Your task to perform on an android device: add a contact Image 0: 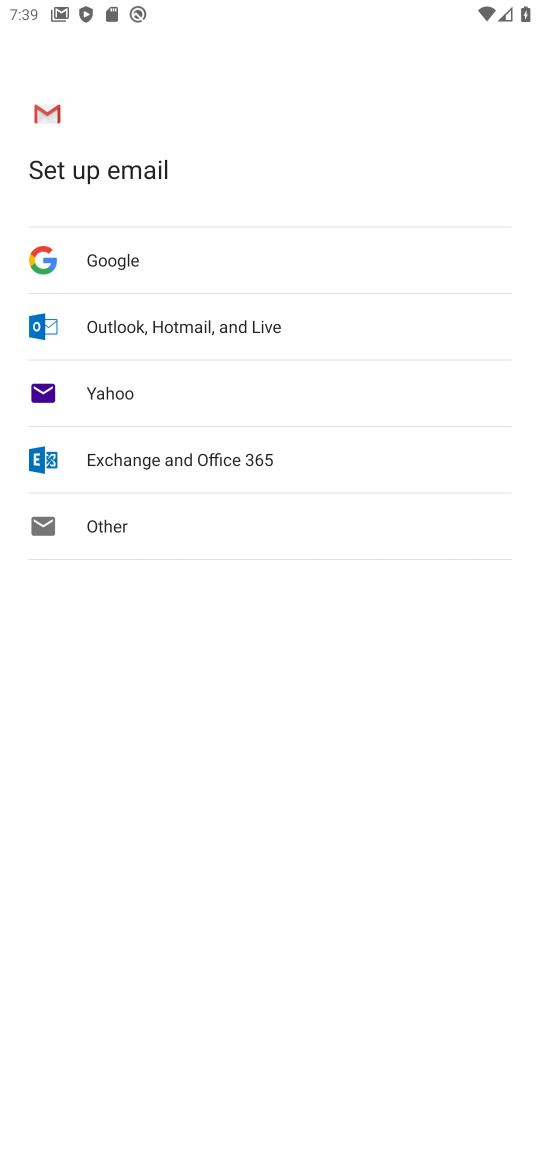
Step 0: press home button
Your task to perform on an android device: add a contact Image 1: 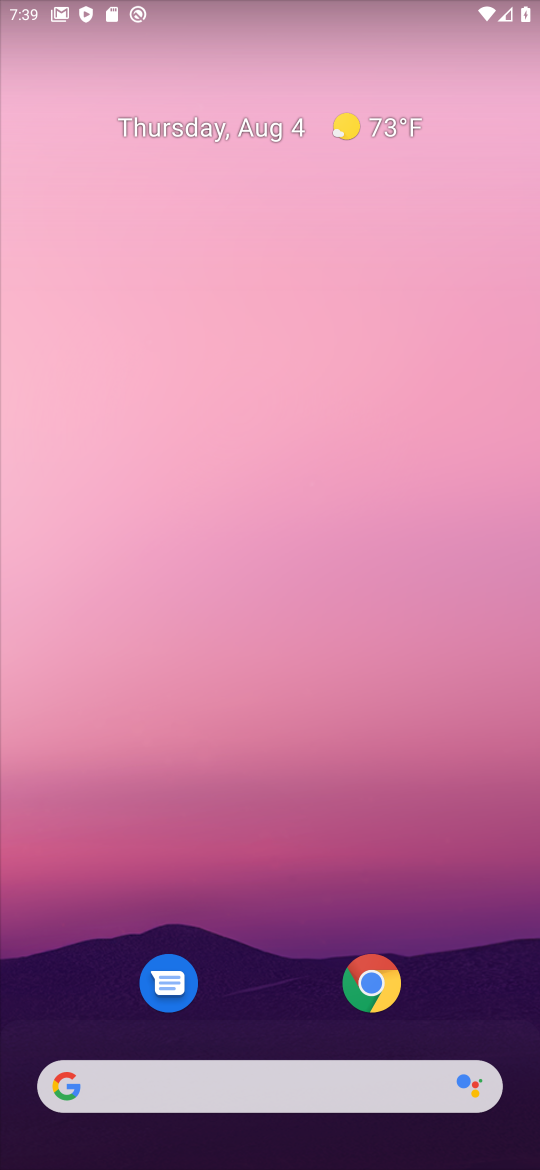
Step 1: drag from (335, 928) to (379, 257)
Your task to perform on an android device: add a contact Image 2: 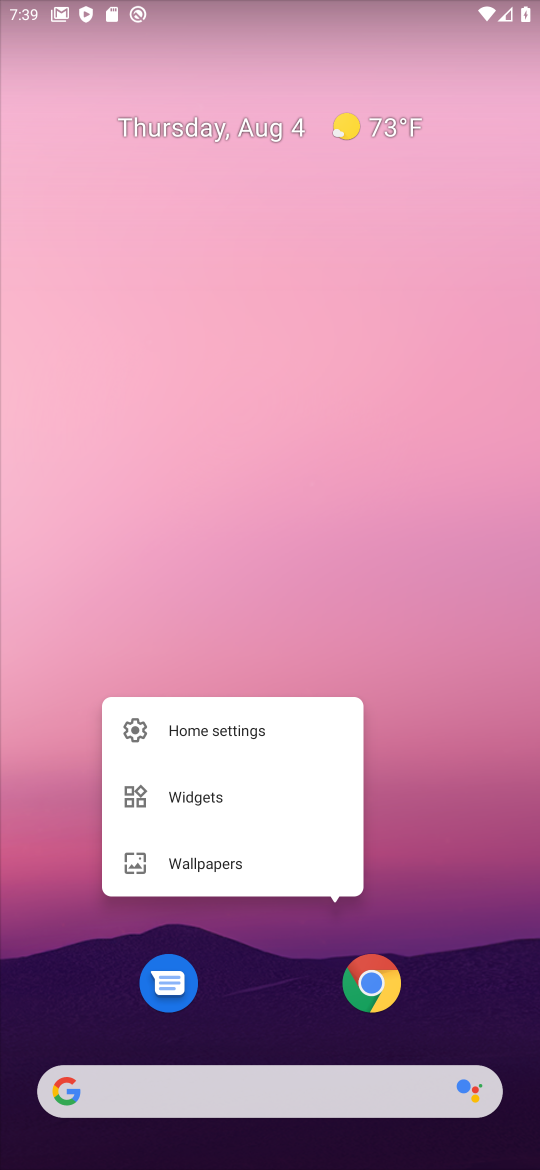
Step 2: drag from (273, 972) to (410, 163)
Your task to perform on an android device: add a contact Image 3: 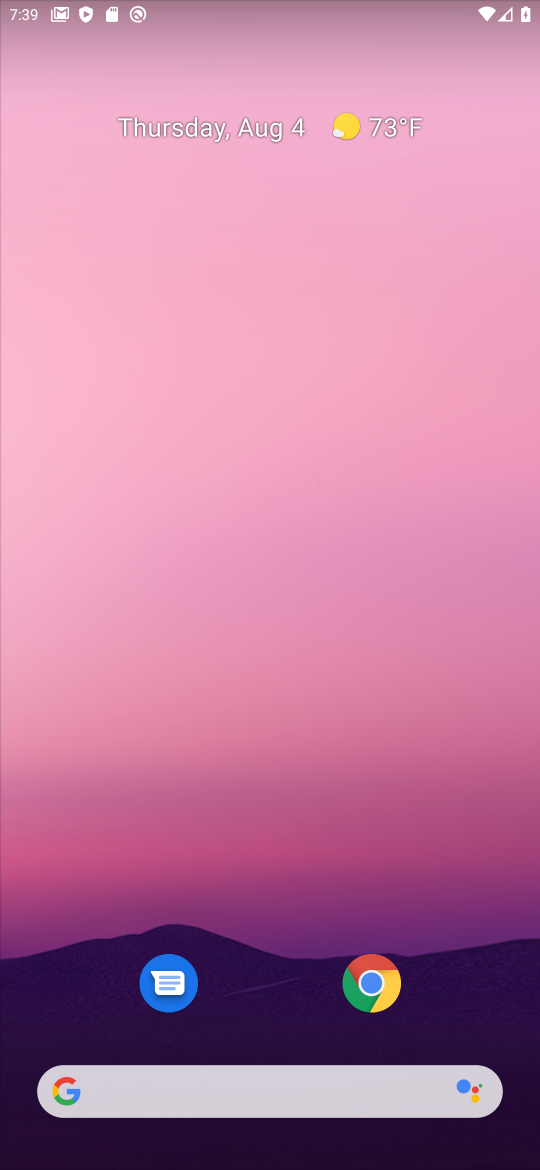
Step 3: drag from (277, 1026) to (373, 213)
Your task to perform on an android device: add a contact Image 4: 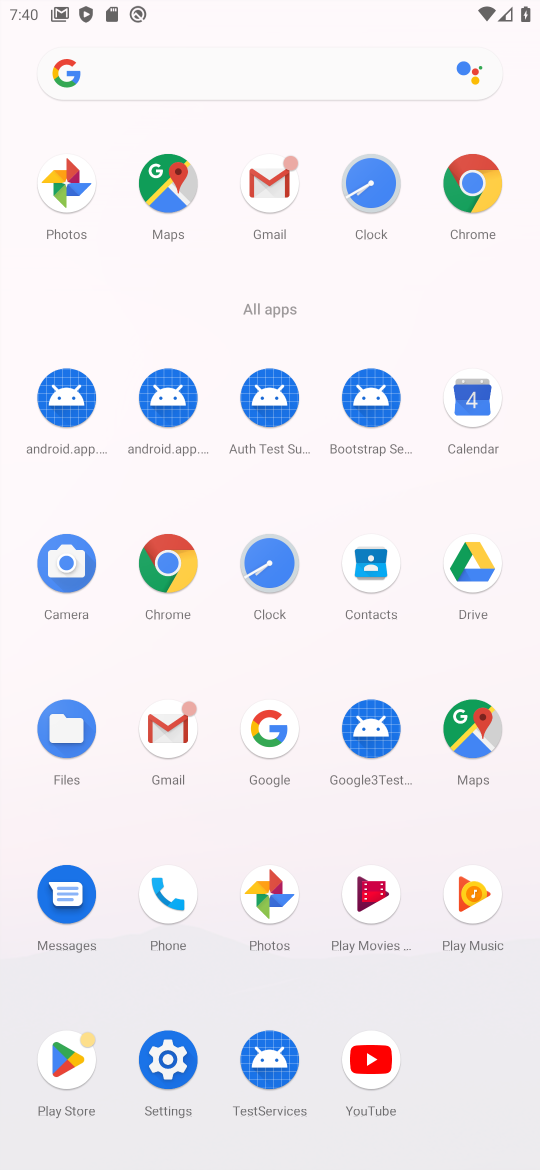
Step 4: click (368, 572)
Your task to perform on an android device: add a contact Image 5: 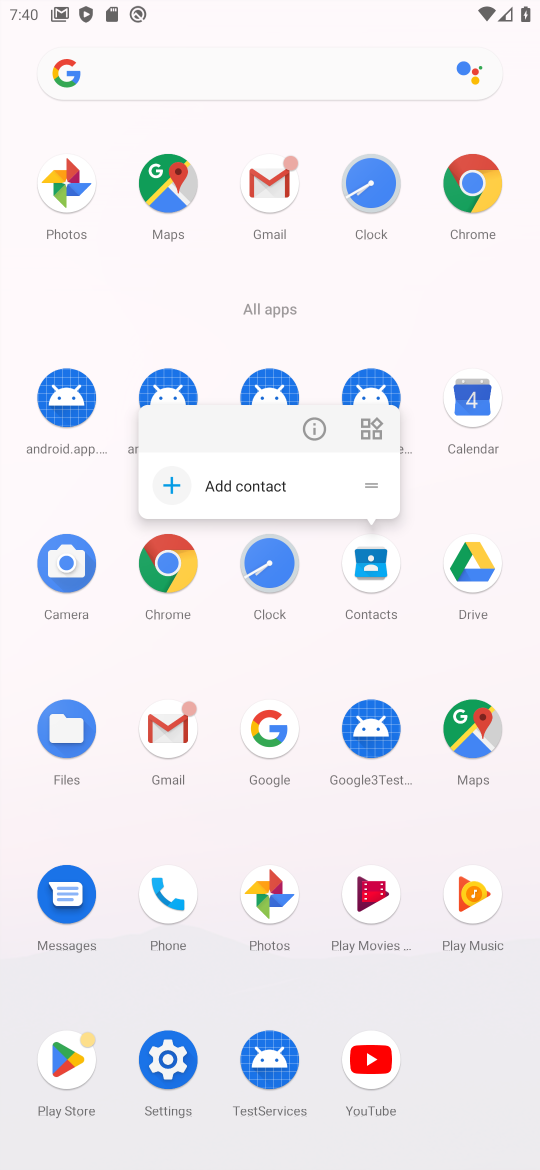
Step 5: click (373, 582)
Your task to perform on an android device: add a contact Image 6: 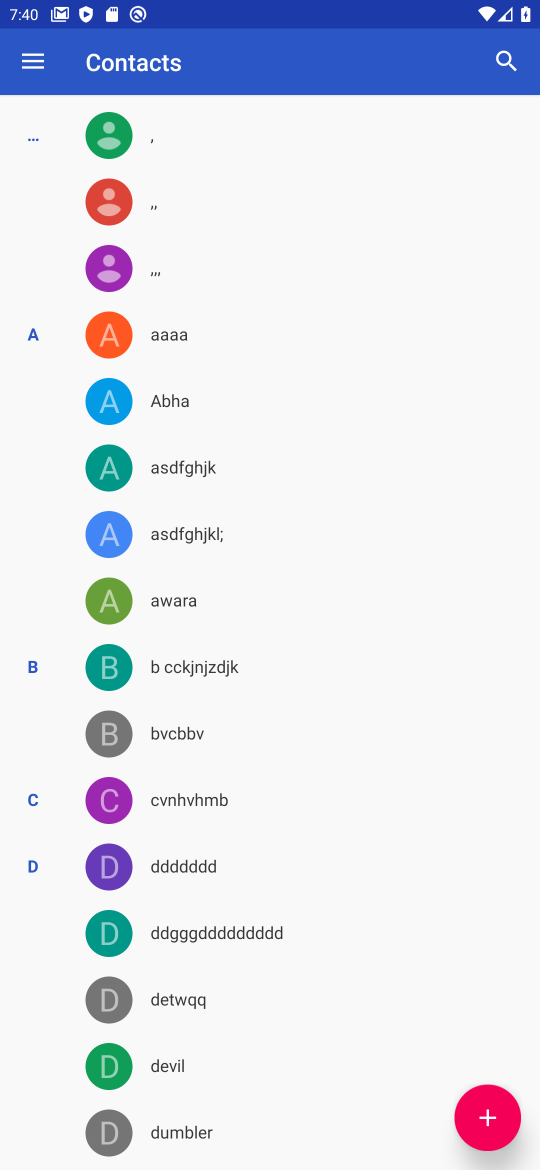
Step 6: click (491, 1122)
Your task to perform on an android device: add a contact Image 7: 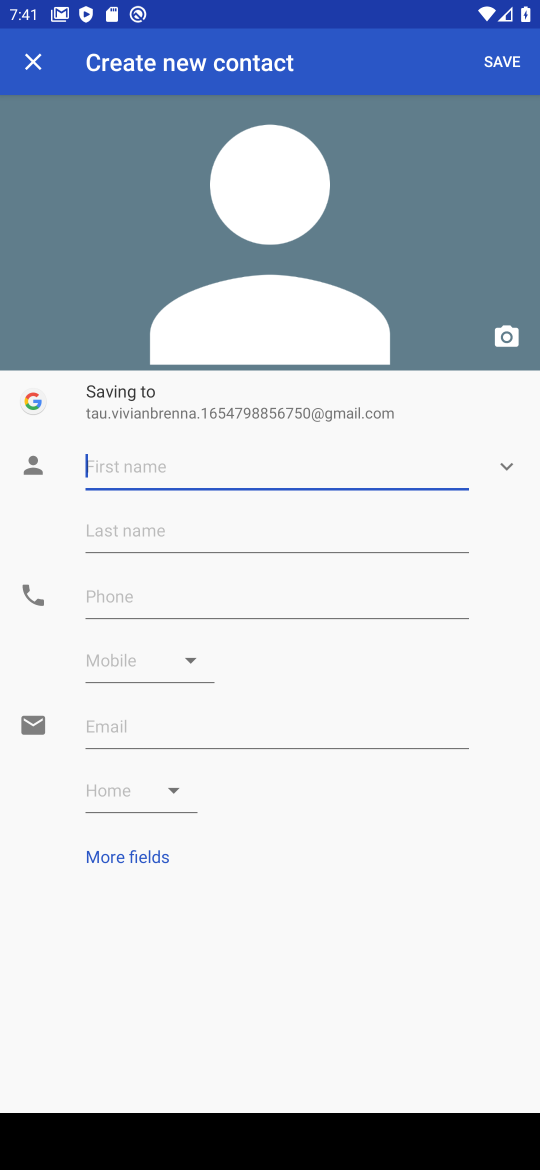
Step 7: type "Asharfi2"
Your task to perform on an android device: add a contact Image 8: 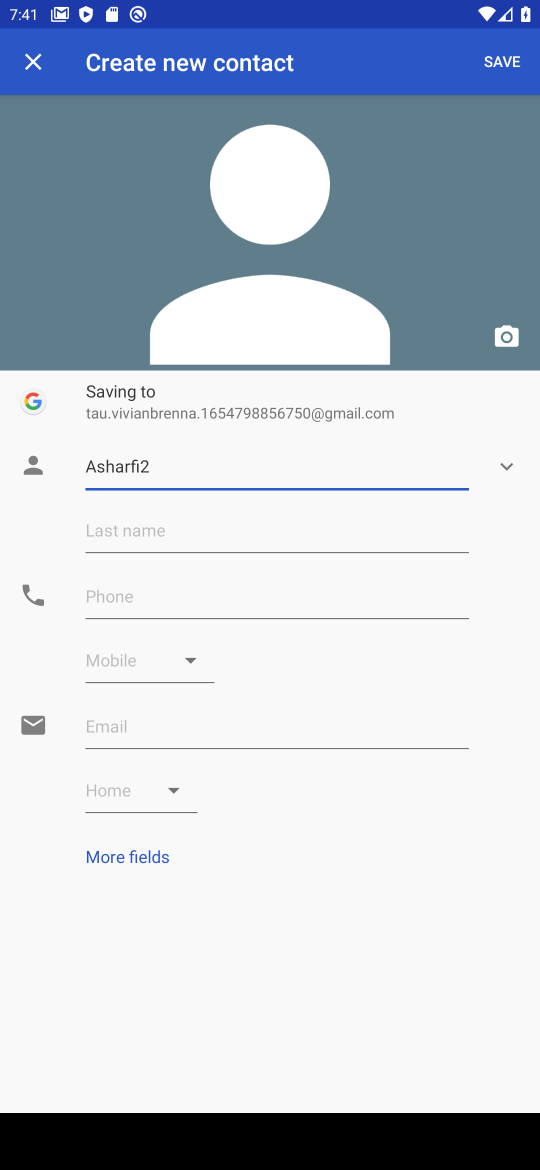
Step 8: click (185, 593)
Your task to perform on an android device: add a contact Image 9: 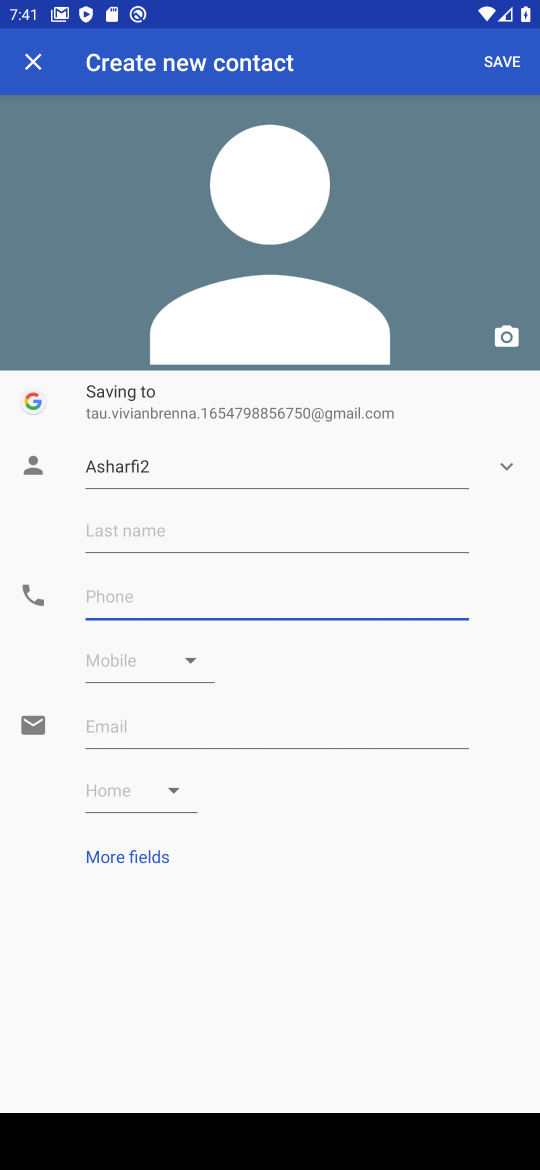
Step 9: type "7678675576"
Your task to perform on an android device: add a contact Image 10: 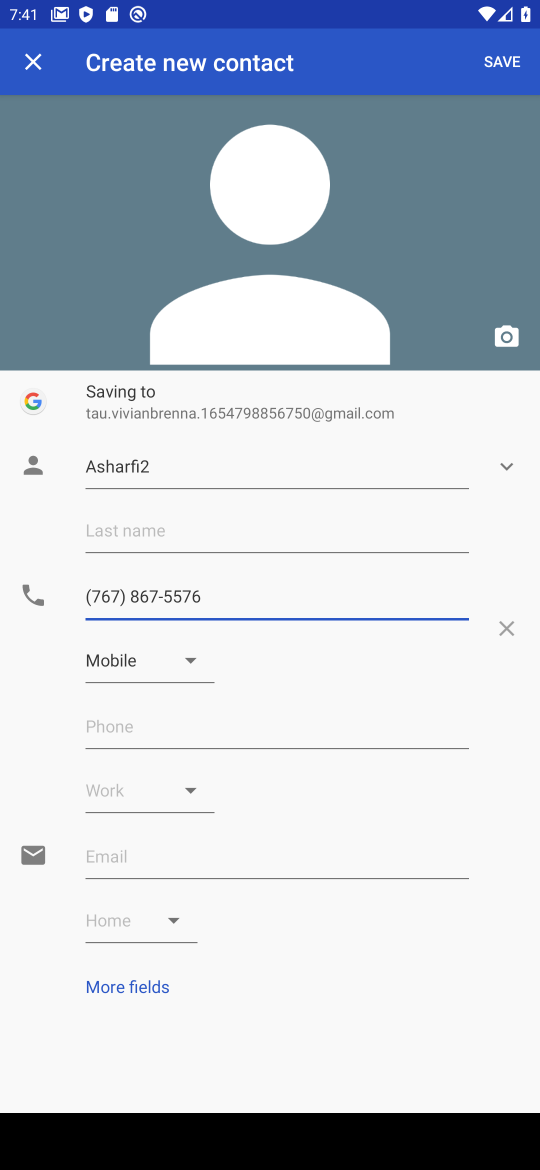
Step 10: click (516, 62)
Your task to perform on an android device: add a contact Image 11: 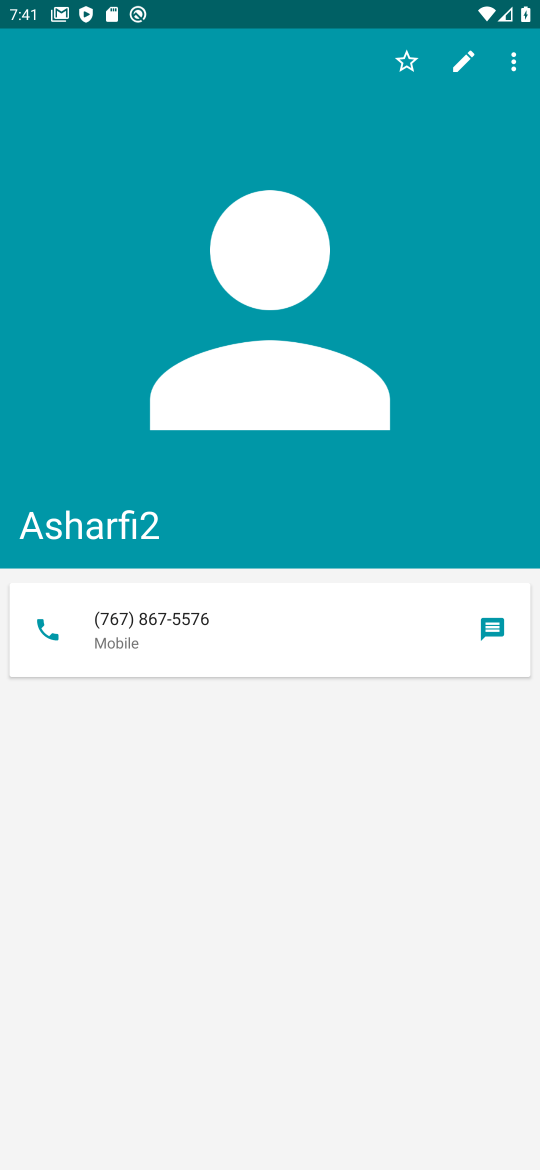
Step 11: task complete